Your task to perform on an android device: Go to sound settings Image 0: 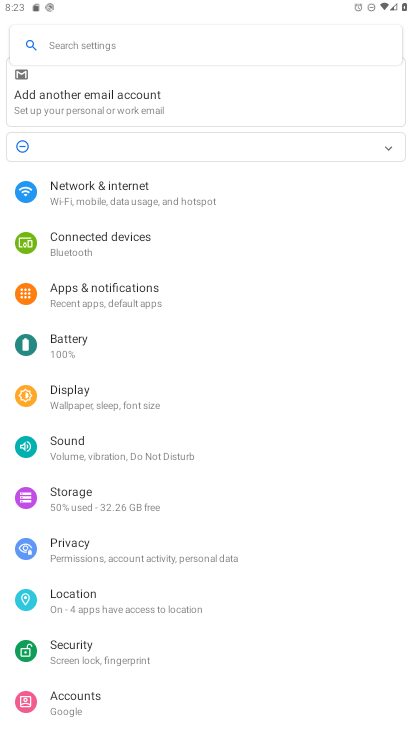
Step 0: press home button
Your task to perform on an android device: Go to sound settings Image 1: 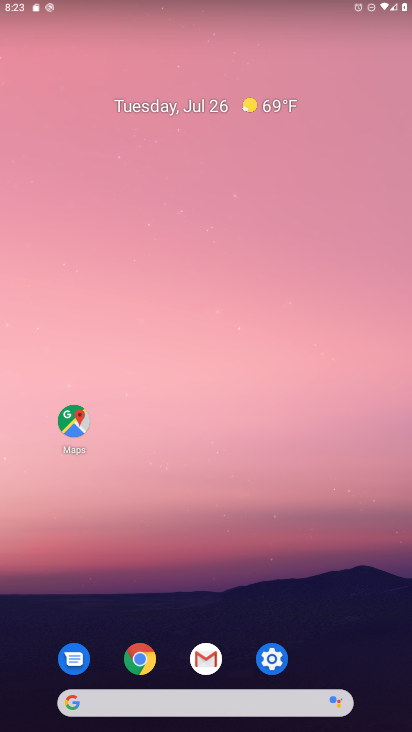
Step 1: click (277, 661)
Your task to perform on an android device: Go to sound settings Image 2: 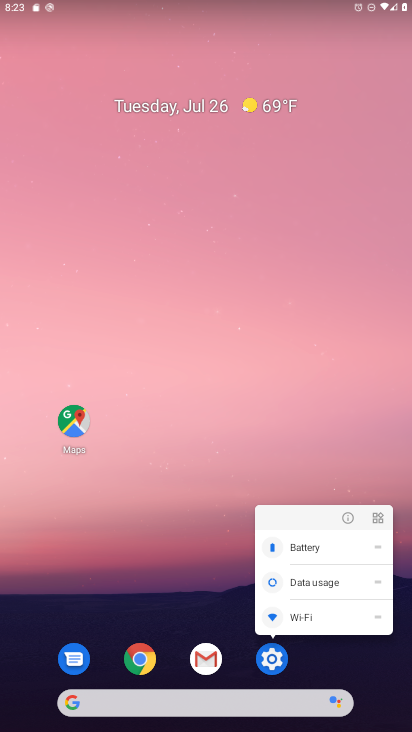
Step 2: click (207, 489)
Your task to perform on an android device: Go to sound settings Image 3: 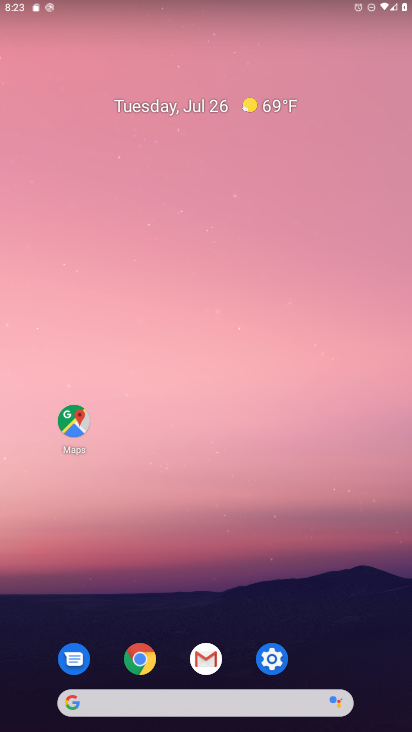
Step 3: click (271, 654)
Your task to perform on an android device: Go to sound settings Image 4: 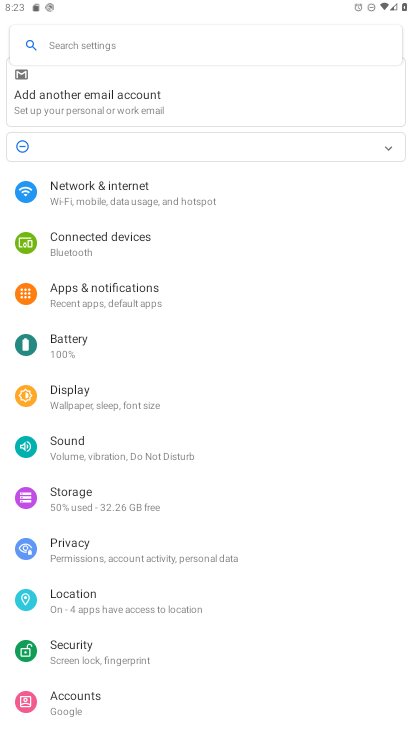
Step 4: click (64, 445)
Your task to perform on an android device: Go to sound settings Image 5: 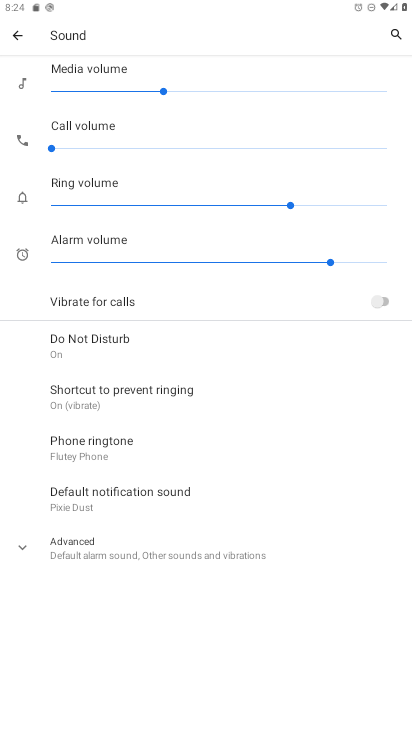
Step 5: task complete